Your task to perform on an android device: empty trash in google photos Image 0: 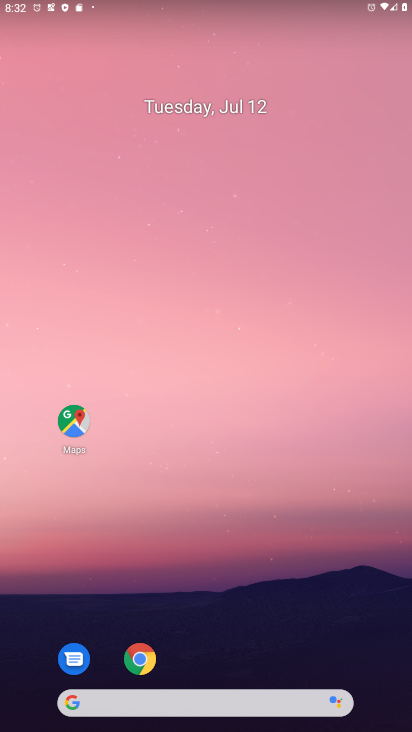
Step 0: drag from (219, 698) to (334, 120)
Your task to perform on an android device: empty trash in google photos Image 1: 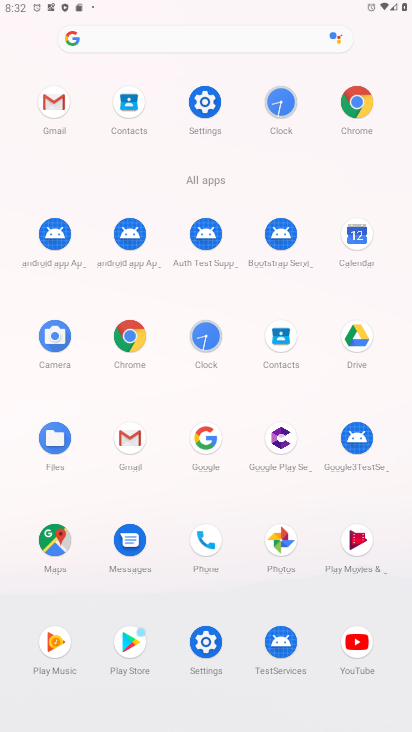
Step 1: click (282, 543)
Your task to perform on an android device: empty trash in google photos Image 2: 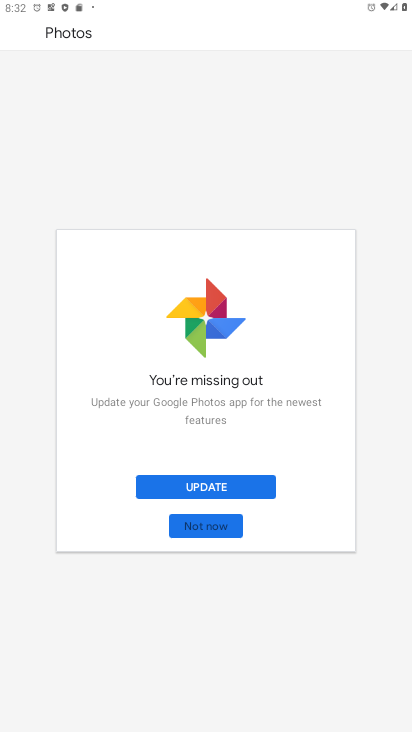
Step 2: click (225, 489)
Your task to perform on an android device: empty trash in google photos Image 3: 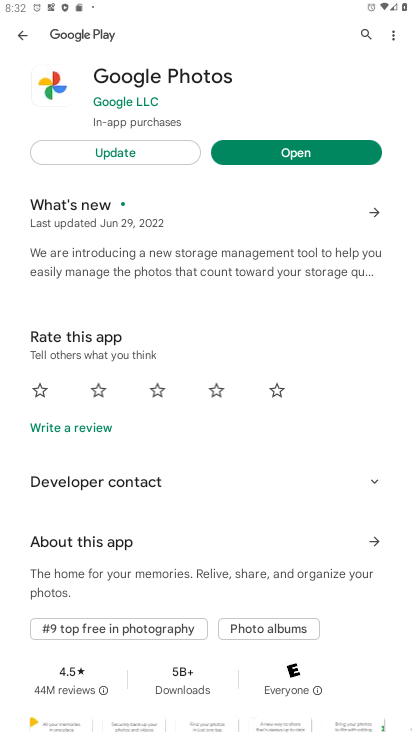
Step 3: click (121, 152)
Your task to perform on an android device: empty trash in google photos Image 4: 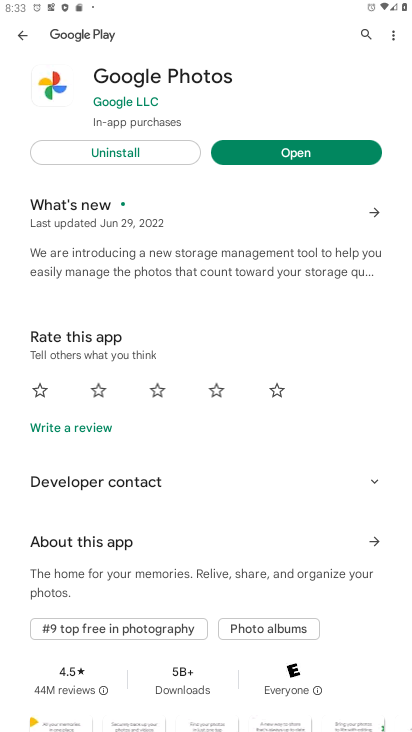
Step 4: click (264, 153)
Your task to perform on an android device: empty trash in google photos Image 5: 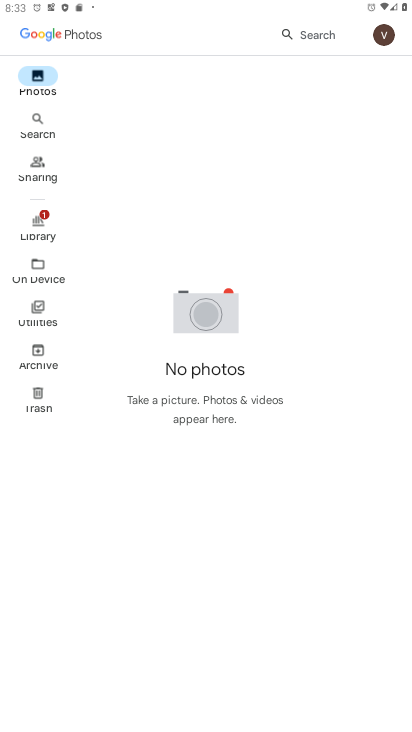
Step 5: click (40, 398)
Your task to perform on an android device: empty trash in google photos Image 6: 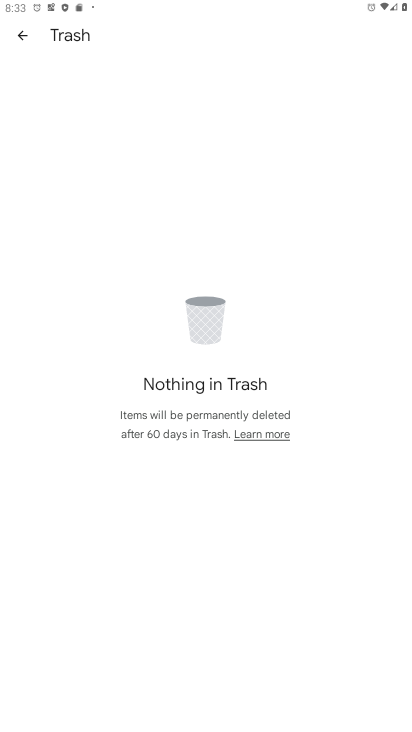
Step 6: task complete